Your task to perform on an android device: open chrome privacy settings Image 0: 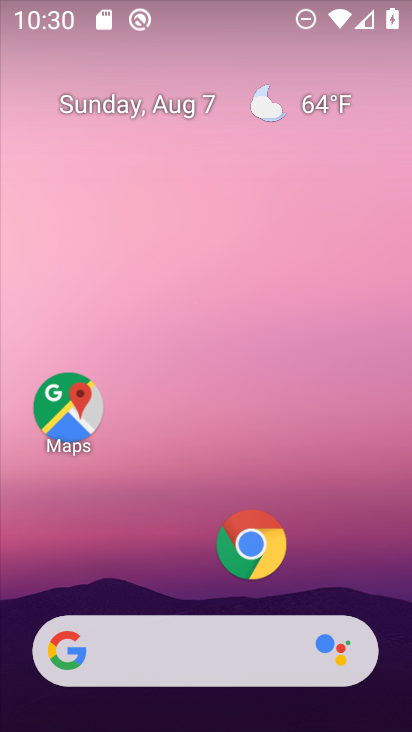
Step 0: drag from (193, 602) to (278, 448)
Your task to perform on an android device: open chrome privacy settings Image 1: 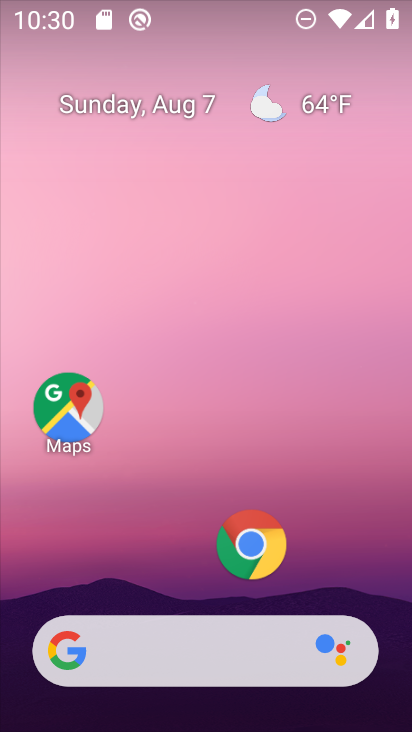
Step 1: click (242, 553)
Your task to perform on an android device: open chrome privacy settings Image 2: 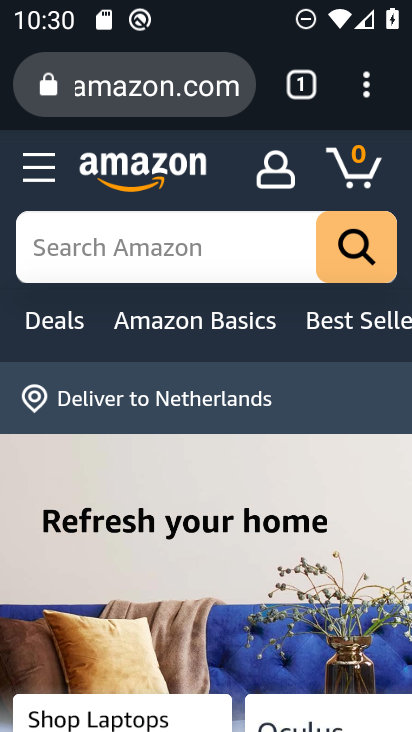
Step 2: drag from (400, 144) to (335, 300)
Your task to perform on an android device: open chrome privacy settings Image 3: 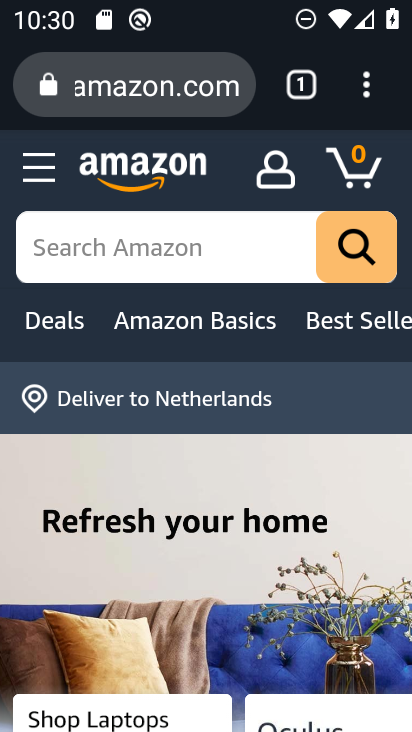
Step 3: drag from (368, 79) to (117, 598)
Your task to perform on an android device: open chrome privacy settings Image 4: 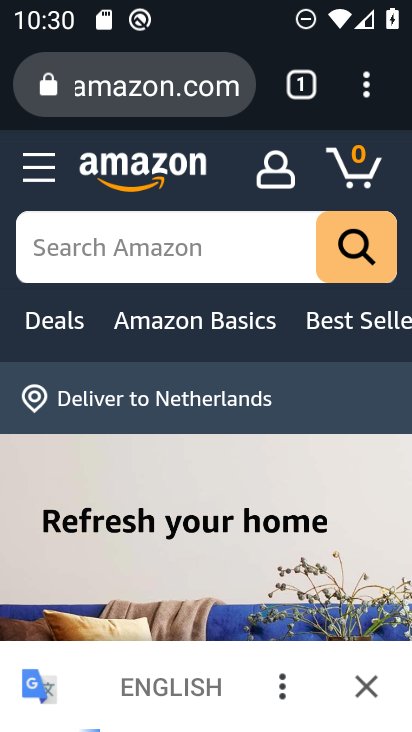
Step 4: drag from (368, 82) to (142, 609)
Your task to perform on an android device: open chrome privacy settings Image 5: 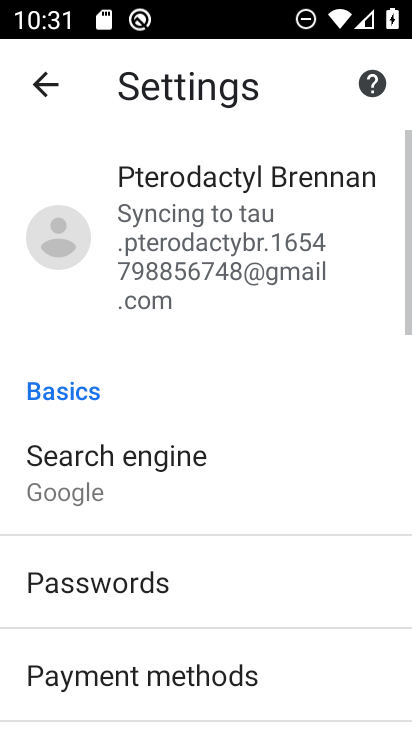
Step 5: drag from (183, 524) to (229, 2)
Your task to perform on an android device: open chrome privacy settings Image 6: 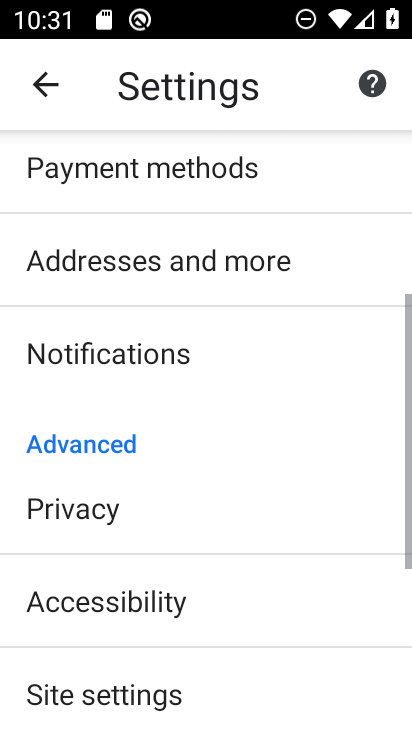
Step 6: click (105, 514)
Your task to perform on an android device: open chrome privacy settings Image 7: 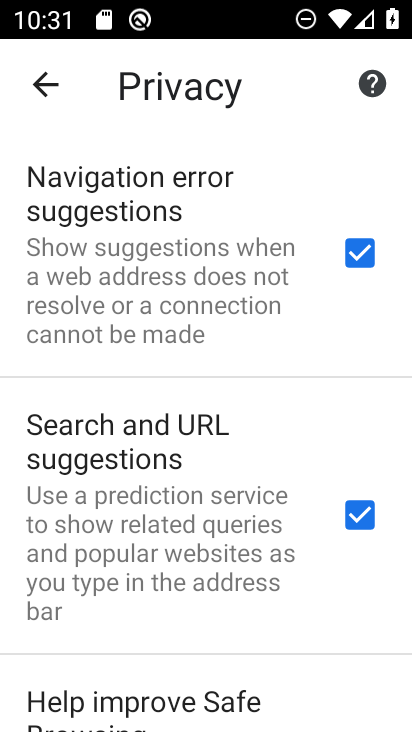
Step 7: task complete